Your task to perform on an android device: Go to internet settings Image 0: 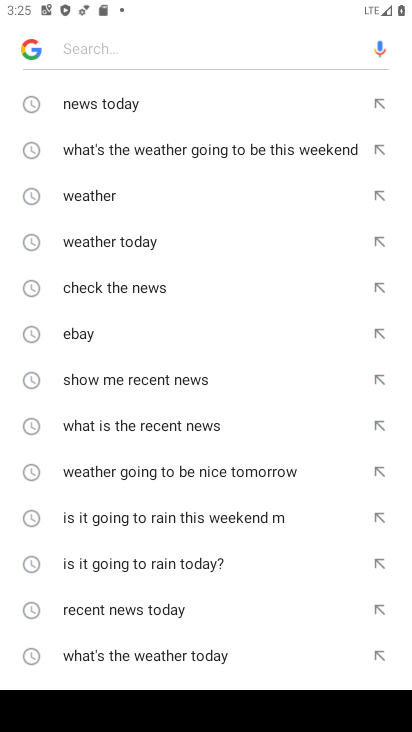
Step 0: press home button
Your task to perform on an android device: Go to internet settings Image 1: 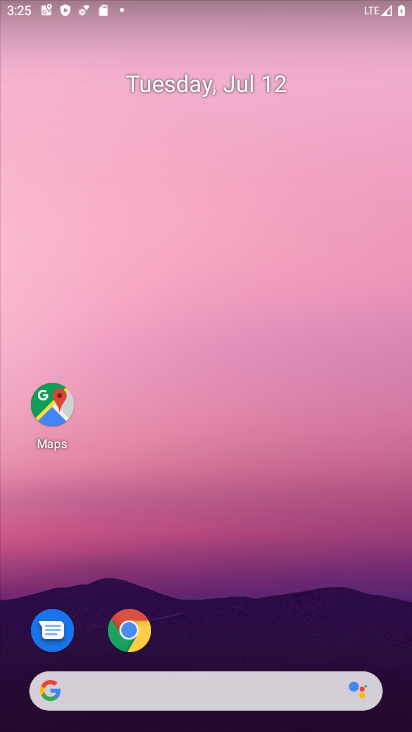
Step 1: drag from (172, 684) to (289, 15)
Your task to perform on an android device: Go to internet settings Image 2: 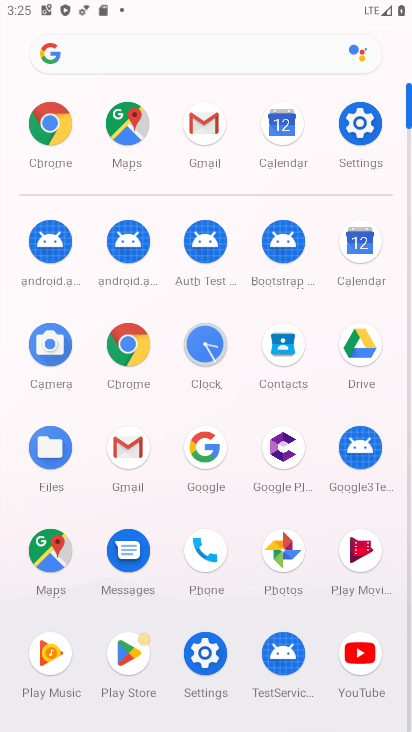
Step 2: click (341, 123)
Your task to perform on an android device: Go to internet settings Image 3: 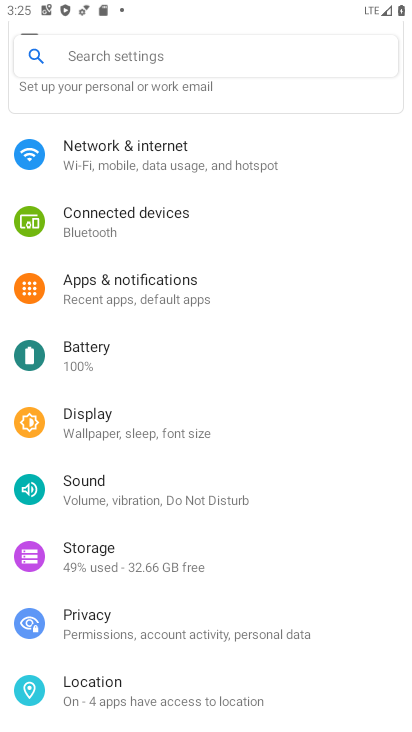
Step 3: click (179, 163)
Your task to perform on an android device: Go to internet settings Image 4: 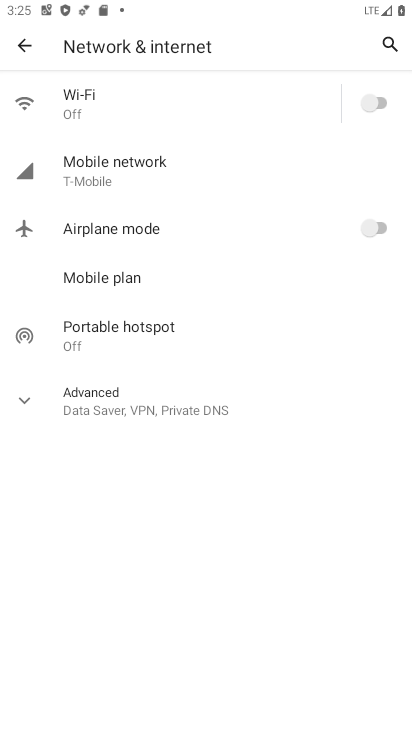
Step 4: task complete